Your task to perform on an android device: Open location settings Image 0: 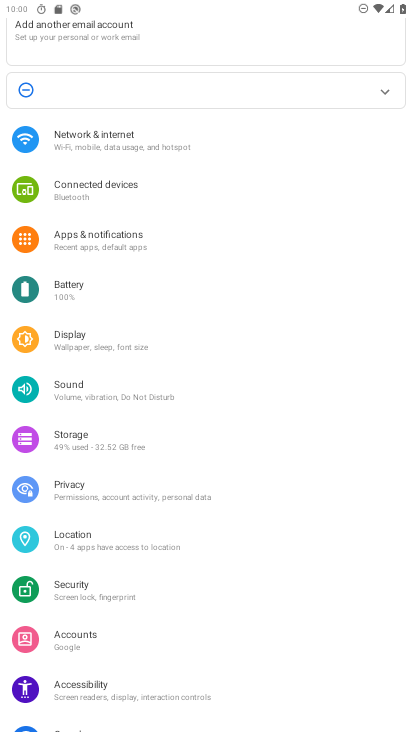
Step 0: click (96, 533)
Your task to perform on an android device: Open location settings Image 1: 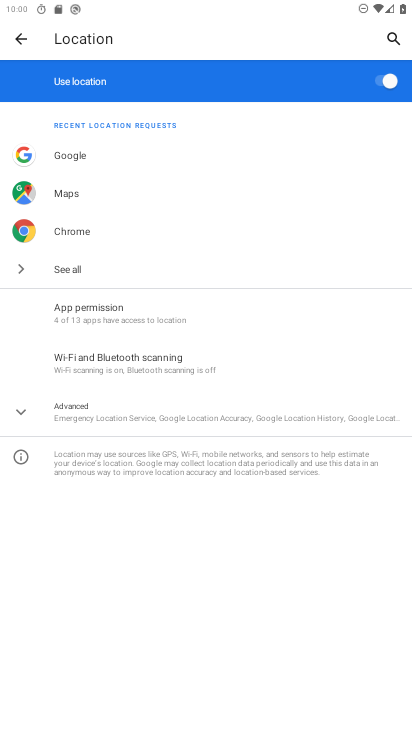
Step 1: task complete